Your task to perform on an android device: Show me the best basketball shoes on Nike.com Image 0: 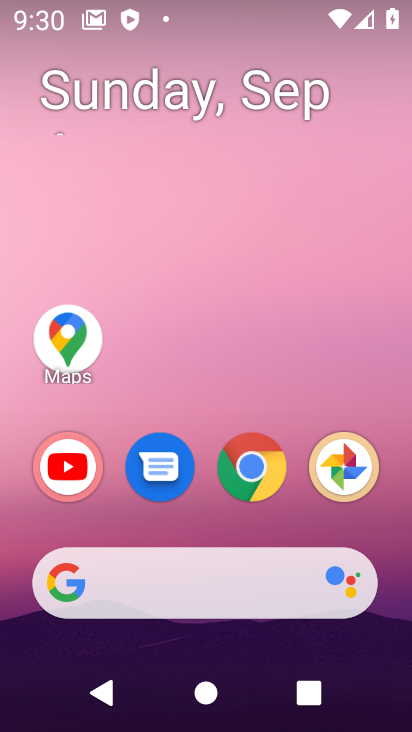
Step 0: click (394, 437)
Your task to perform on an android device: Show me the best basketball shoes on Nike.com Image 1: 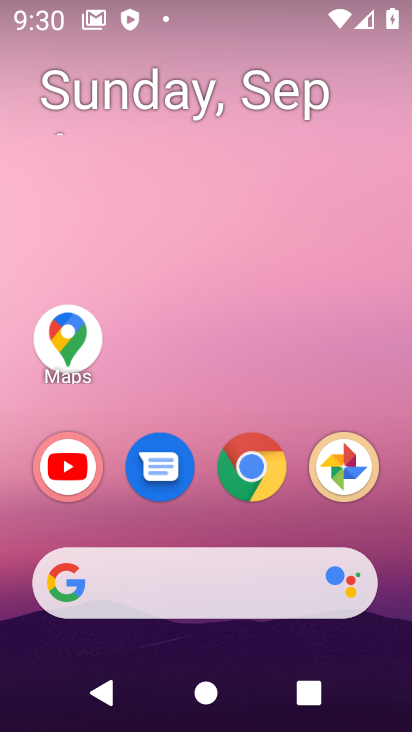
Step 1: click (243, 449)
Your task to perform on an android device: Show me the best basketball shoes on Nike.com Image 2: 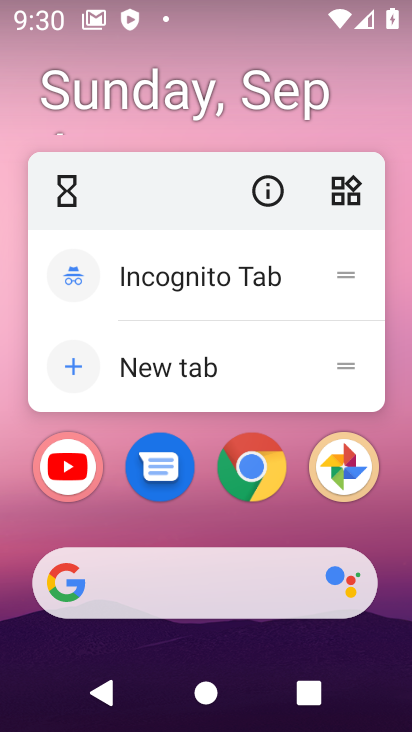
Step 2: click (248, 480)
Your task to perform on an android device: Show me the best basketball shoes on Nike.com Image 3: 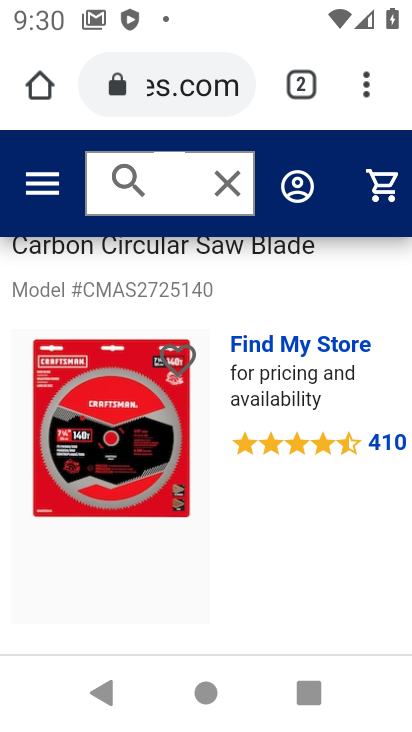
Step 3: click (190, 96)
Your task to perform on an android device: Show me the best basketball shoes on Nike.com Image 4: 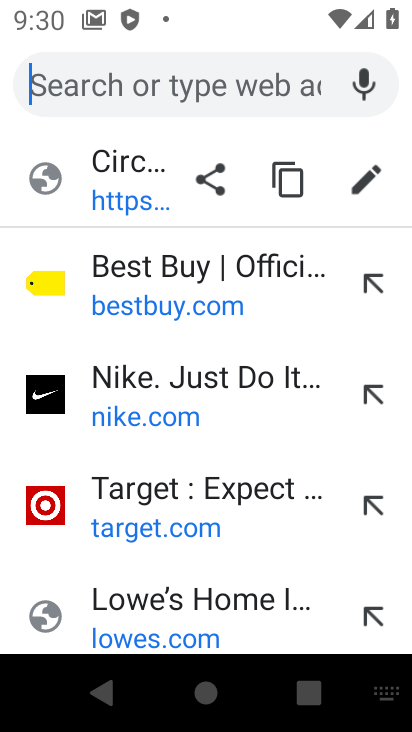
Step 4: type "nike.com"
Your task to perform on an android device: Show me the best basketball shoes on Nike.com Image 5: 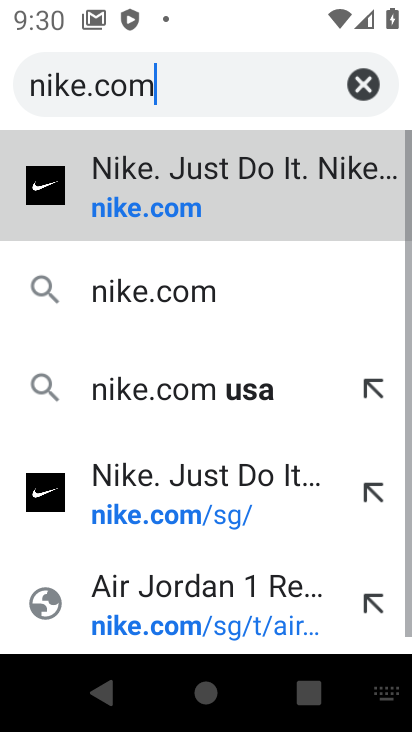
Step 5: type ""
Your task to perform on an android device: Show me the best basketball shoes on Nike.com Image 6: 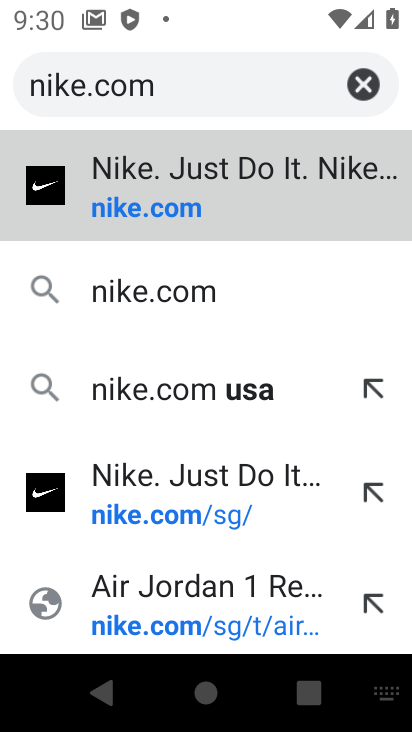
Step 6: click (118, 200)
Your task to perform on an android device: Show me the best basketball shoes on Nike.com Image 7: 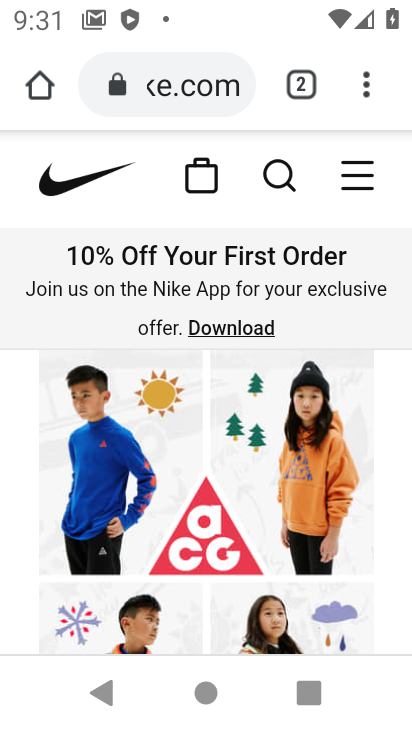
Step 7: click (271, 169)
Your task to perform on an android device: Show me the best basketball shoes on Nike.com Image 8: 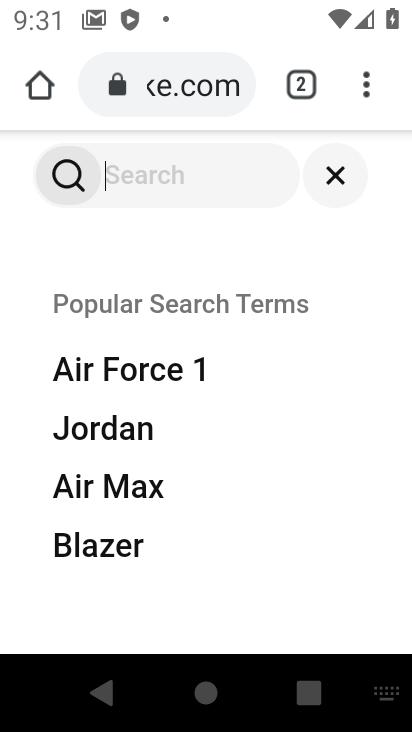
Step 8: type "basketball shoes"
Your task to perform on an android device: Show me the best basketball shoes on Nike.com Image 9: 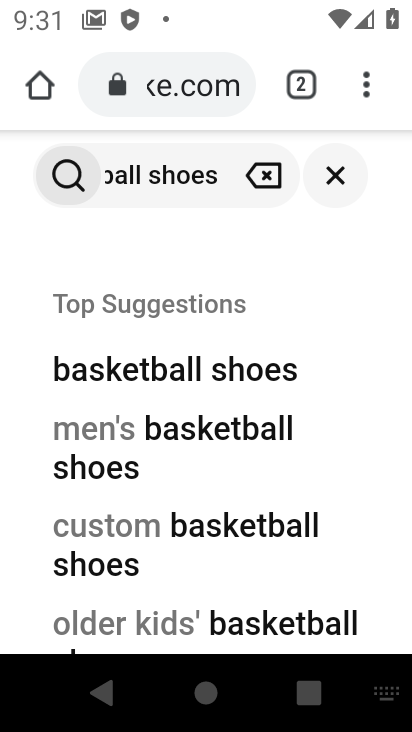
Step 9: click (147, 368)
Your task to perform on an android device: Show me the best basketball shoes on Nike.com Image 10: 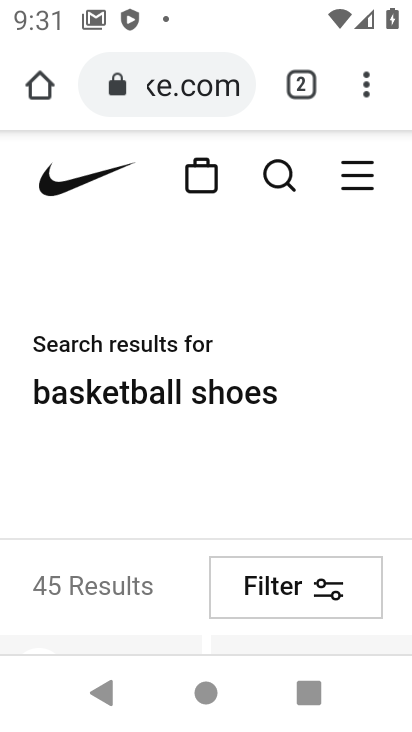
Step 10: drag from (280, 474) to (327, 169)
Your task to perform on an android device: Show me the best basketball shoes on Nike.com Image 11: 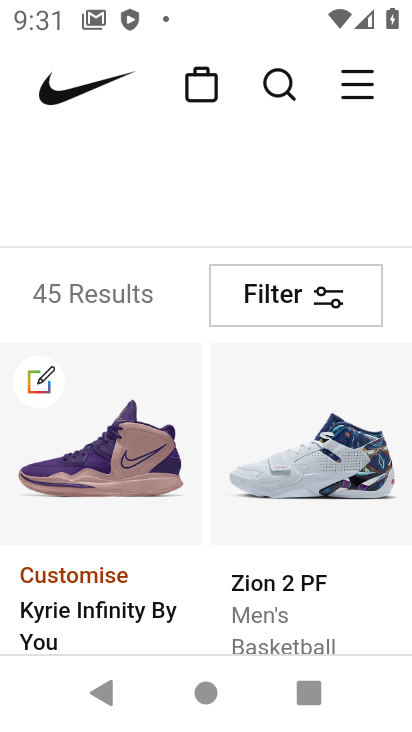
Step 11: drag from (291, 415) to (286, 141)
Your task to perform on an android device: Show me the best basketball shoes on Nike.com Image 12: 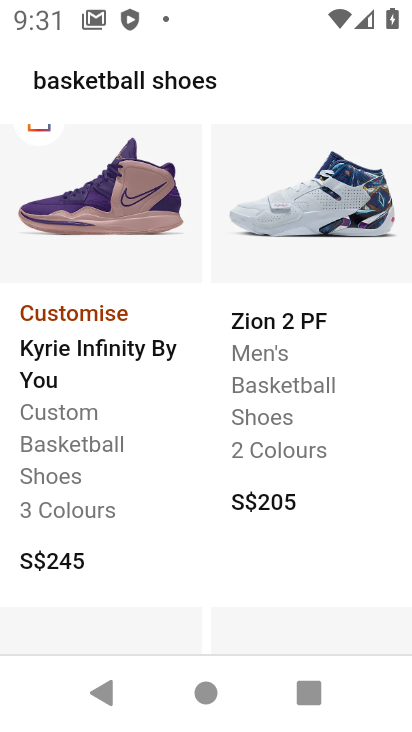
Step 12: click (346, 530)
Your task to perform on an android device: Show me the best basketball shoes on Nike.com Image 13: 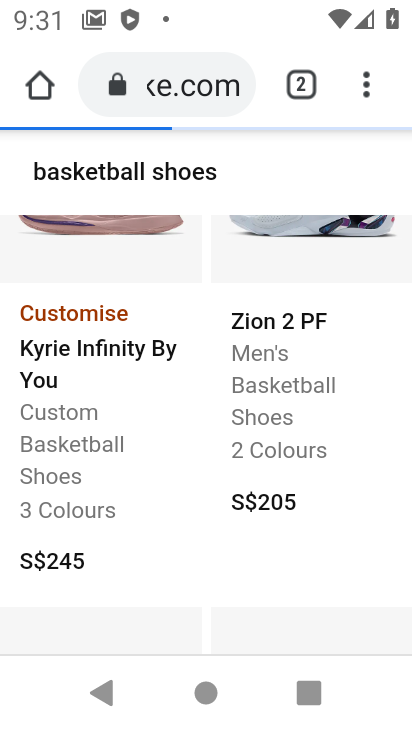
Step 13: drag from (289, 555) to (284, 117)
Your task to perform on an android device: Show me the best basketball shoes on Nike.com Image 14: 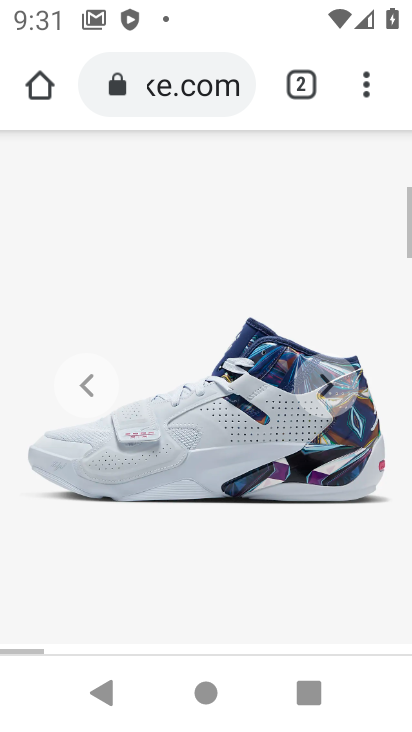
Step 14: drag from (248, 423) to (308, 199)
Your task to perform on an android device: Show me the best basketball shoes on Nike.com Image 15: 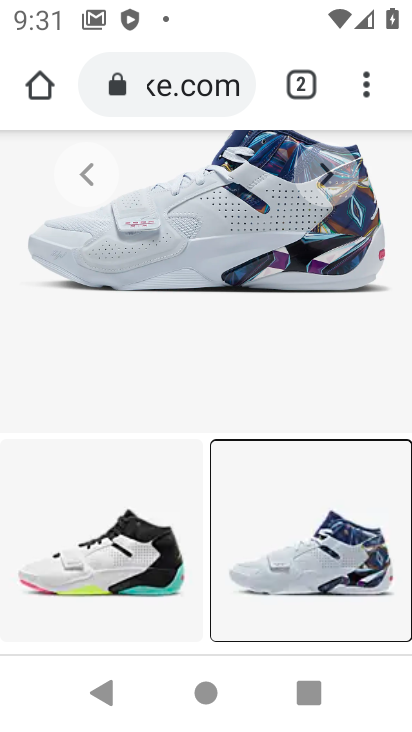
Step 15: drag from (235, 561) to (285, 187)
Your task to perform on an android device: Show me the best basketball shoes on Nike.com Image 16: 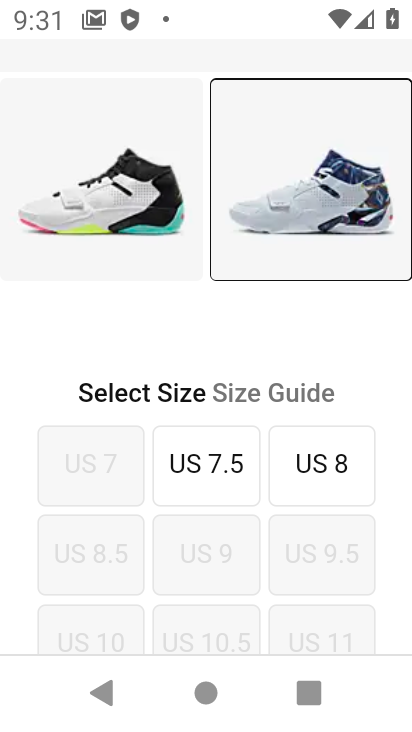
Step 16: drag from (384, 376) to (371, 122)
Your task to perform on an android device: Show me the best basketball shoes on Nike.com Image 17: 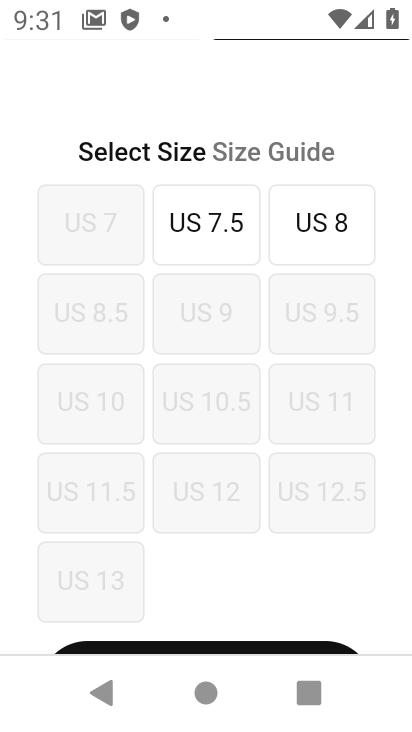
Step 17: drag from (367, 582) to (356, 213)
Your task to perform on an android device: Show me the best basketball shoes on Nike.com Image 18: 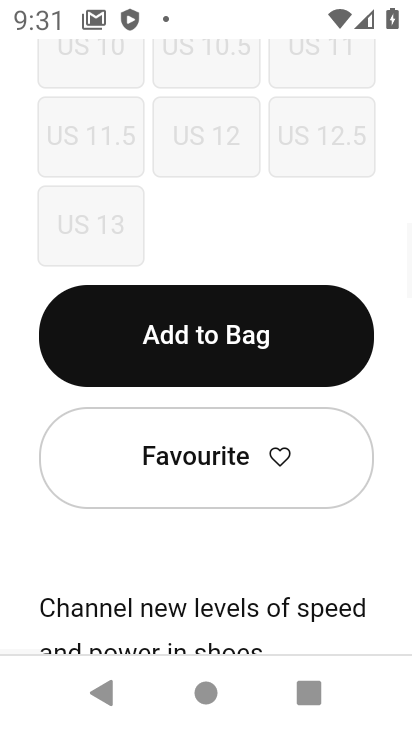
Step 18: drag from (347, 586) to (348, 238)
Your task to perform on an android device: Show me the best basketball shoes on Nike.com Image 19: 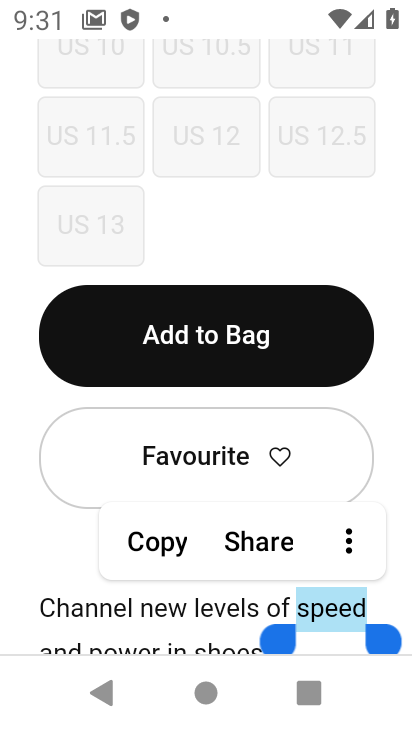
Step 19: drag from (365, 320) to (369, 568)
Your task to perform on an android device: Show me the best basketball shoes on Nike.com Image 20: 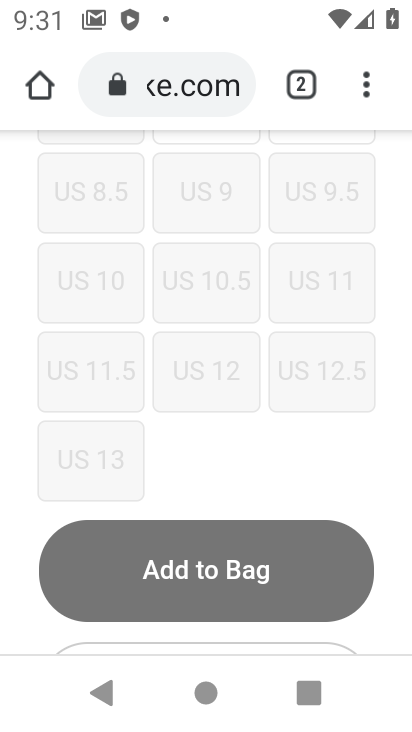
Step 20: drag from (265, 405) to (311, 729)
Your task to perform on an android device: Show me the best basketball shoes on Nike.com Image 21: 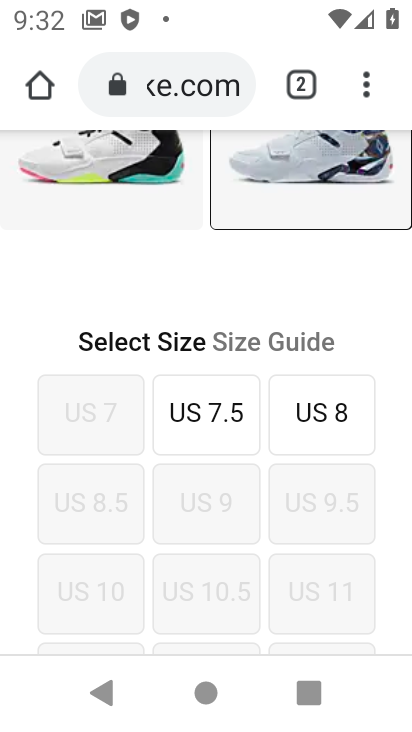
Step 21: drag from (373, 301) to (334, 597)
Your task to perform on an android device: Show me the best basketball shoes on Nike.com Image 22: 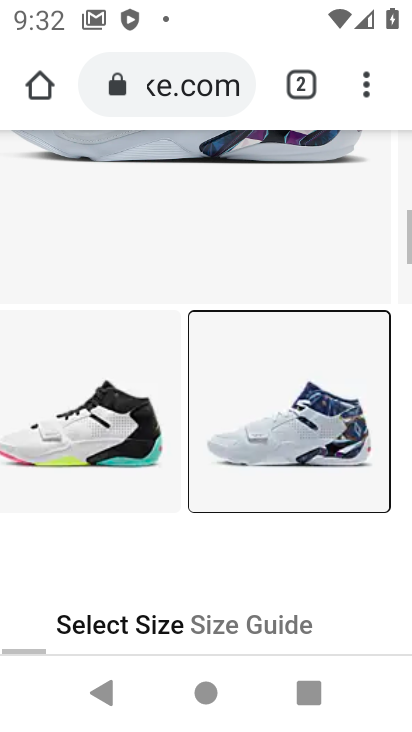
Step 22: drag from (288, 344) to (294, 576)
Your task to perform on an android device: Show me the best basketball shoes on Nike.com Image 23: 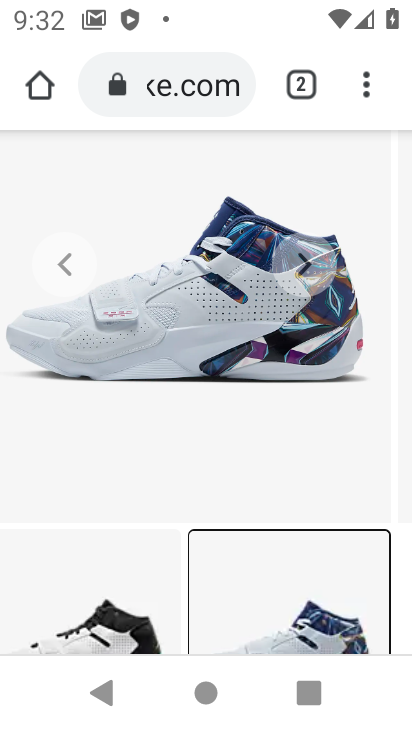
Step 23: drag from (349, 350) to (322, 677)
Your task to perform on an android device: Show me the best basketball shoes on Nike.com Image 24: 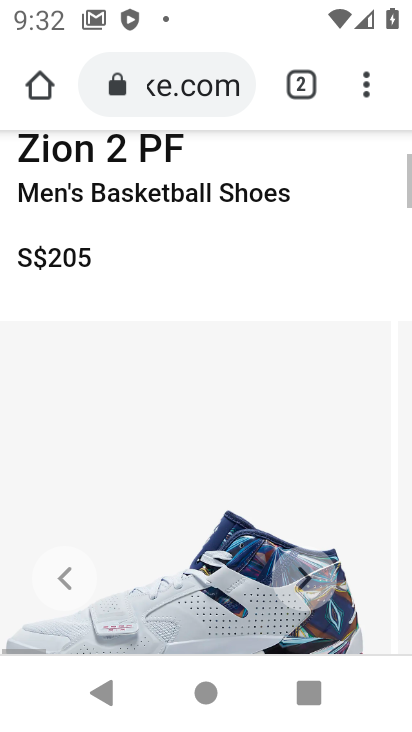
Step 24: drag from (271, 287) to (267, 658)
Your task to perform on an android device: Show me the best basketball shoes on Nike.com Image 25: 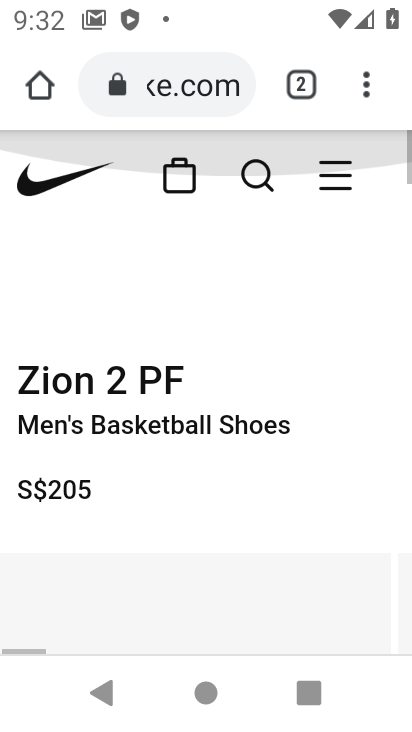
Step 25: click (249, 634)
Your task to perform on an android device: Show me the best basketball shoes on Nike.com Image 26: 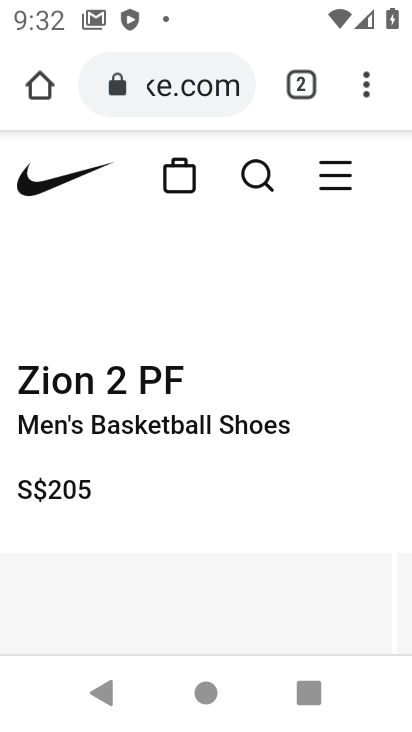
Step 26: task complete